Your task to perform on an android device: toggle data saver in the chrome app Image 0: 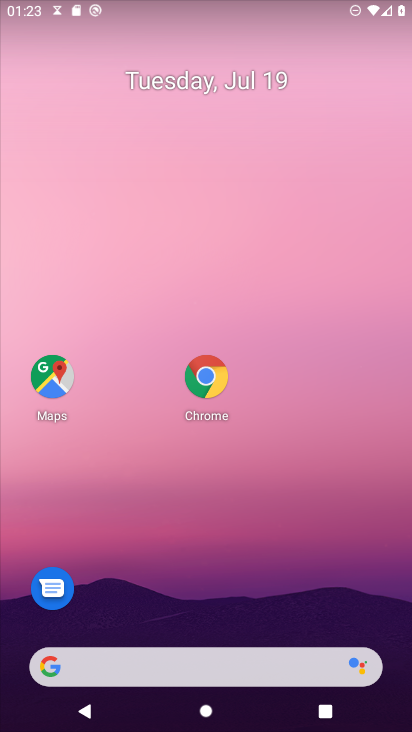
Step 0: click (201, 378)
Your task to perform on an android device: toggle data saver in the chrome app Image 1: 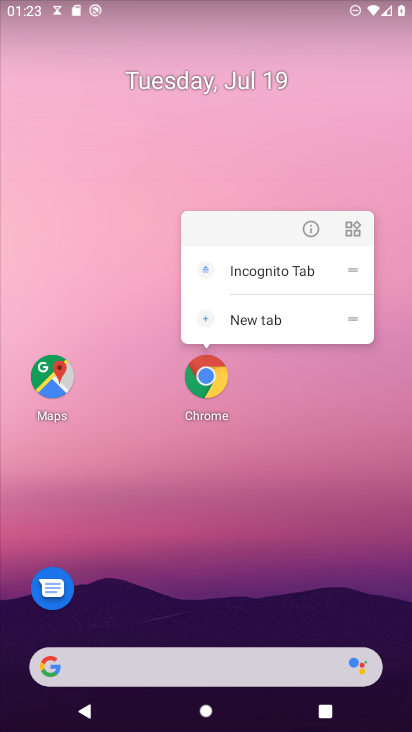
Step 1: click (202, 378)
Your task to perform on an android device: toggle data saver in the chrome app Image 2: 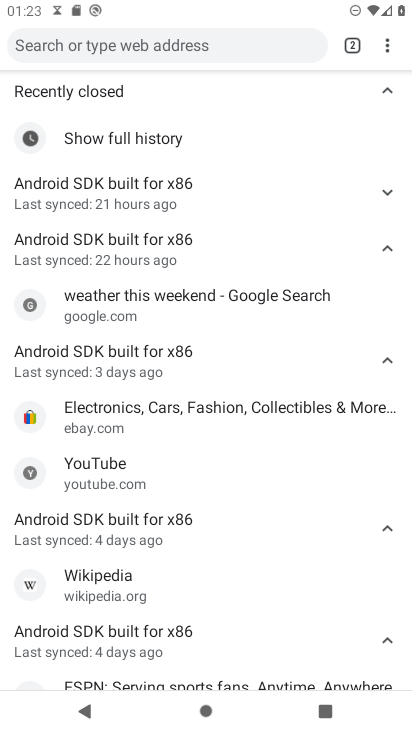
Step 2: drag from (388, 44) to (258, 381)
Your task to perform on an android device: toggle data saver in the chrome app Image 3: 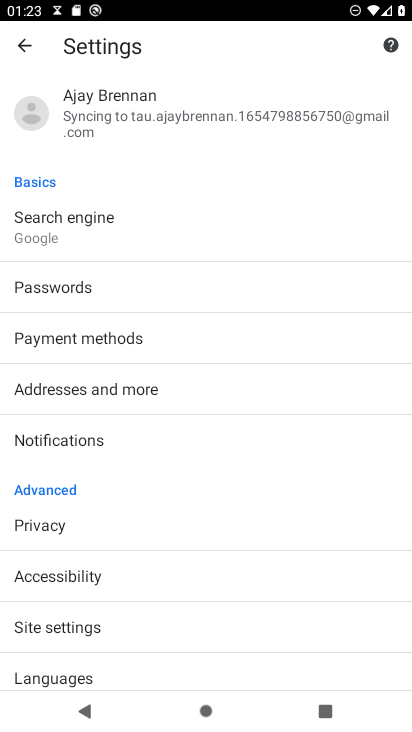
Step 3: drag from (189, 497) to (215, 178)
Your task to perform on an android device: toggle data saver in the chrome app Image 4: 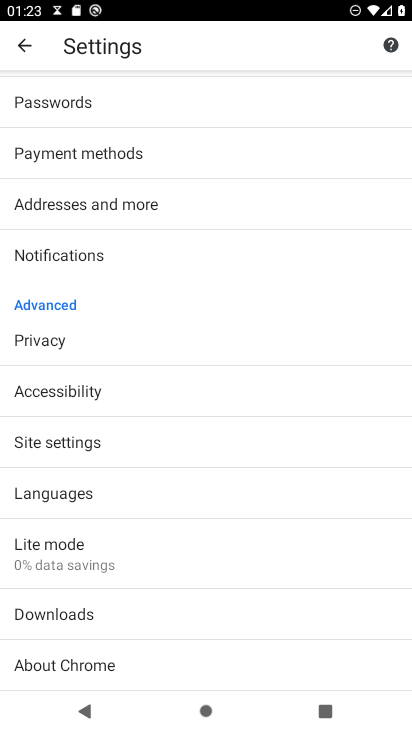
Step 4: click (98, 558)
Your task to perform on an android device: toggle data saver in the chrome app Image 5: 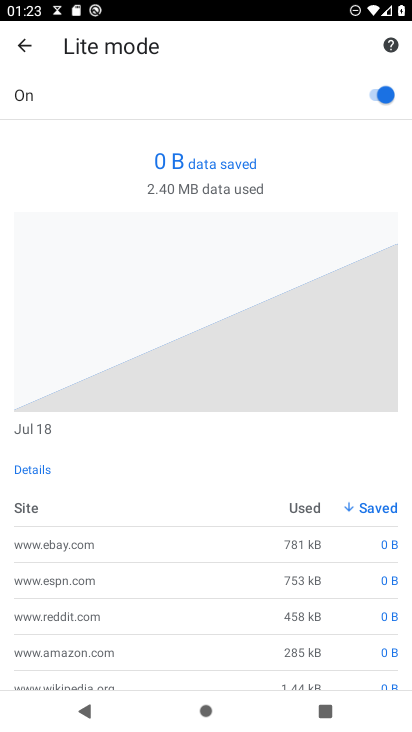
Step 5: click (411, 154)
Your task to perform on an android device: toggle data saver in the chrome app Image 6: 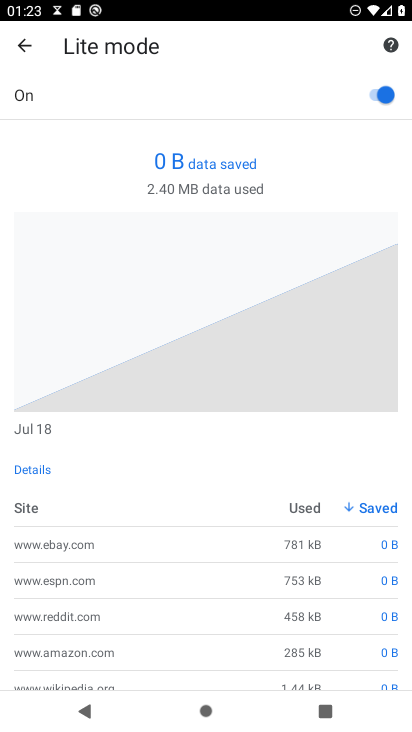
Step 6: click (370, 91)
Your task to perform on an android device: toggle data saver in the chrome app Image 7: 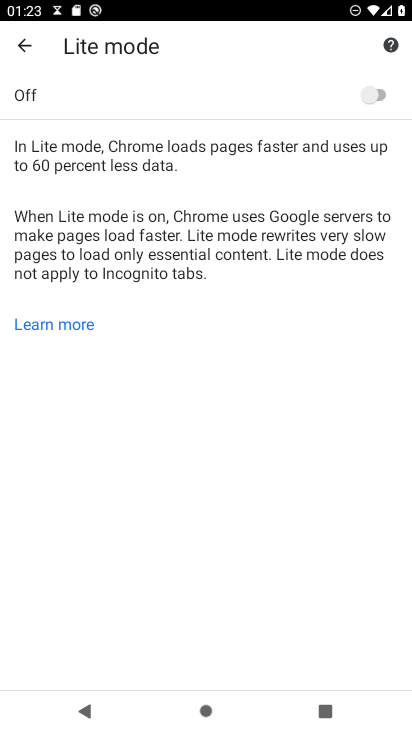
Step 7: task complete